Your task to perform on an android device: add a label to a message in the gmail app Image 0: 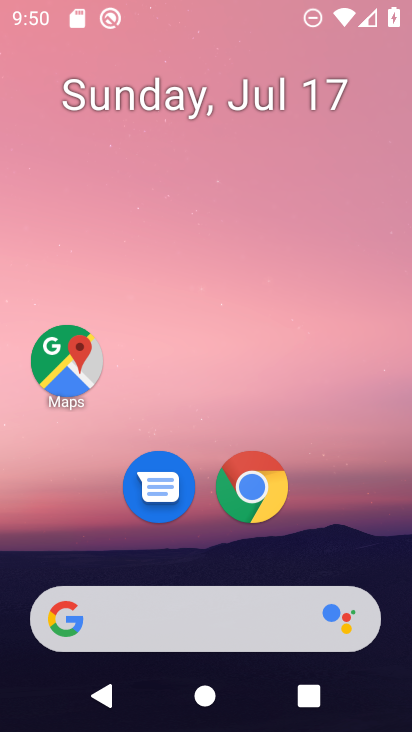
Step 0: press home button
Your task to perform on an android device: add a label to a message in the gmail app Image 1: 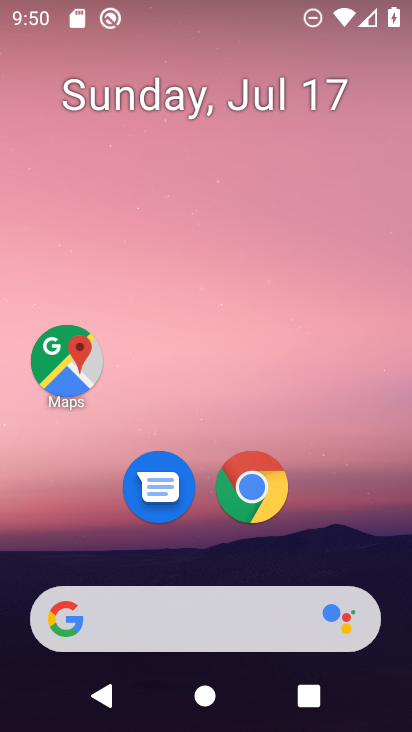
Step 1: drag from (338, 549) to (256, 1)
Your task to perform on an android device: add a label to a message in the gmail app Image 2: 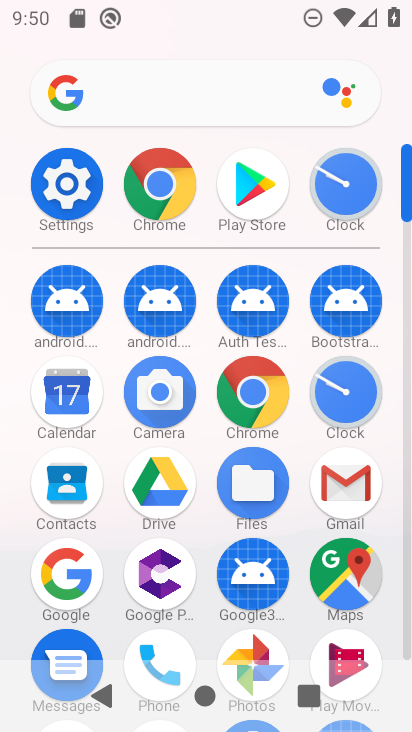
Step 2: click (358, 477)
Your task to perform on an android device: add a label to a message in the gmail app Image 3: 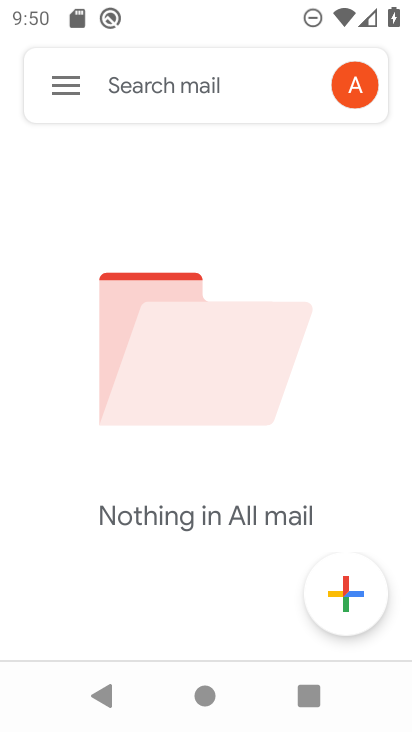
Step 3: click (77, 90)
Your task to perform on an android device: add a label to a message in the gmail app Image 4: 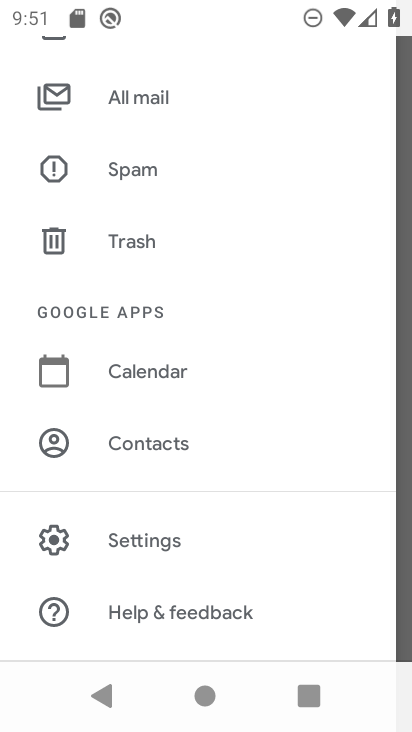
Step 4: click (146, 102)
Your task to perform on an android device: add a label to a message in the gmail app Image 5: 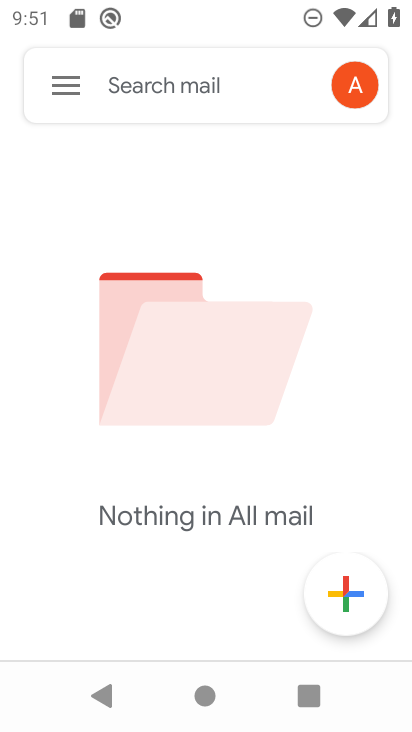
Step 5: task complete